Your task to perform on an android device: open wifi settings Image 0: 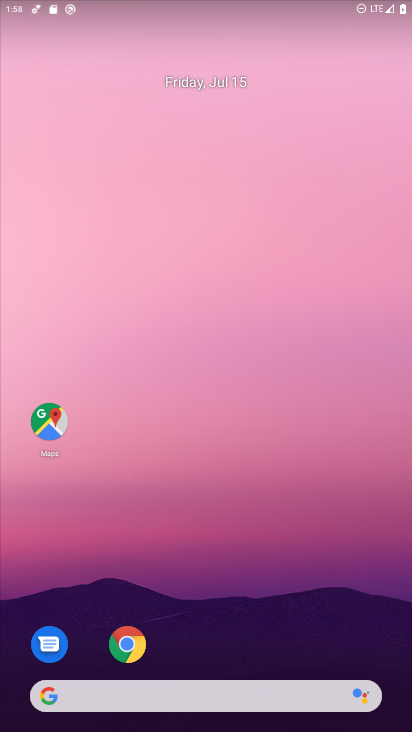
Step 0: drag from (267, 10) to (153, 443)
Your task to perform on an android device: open wifi settings Image 1: 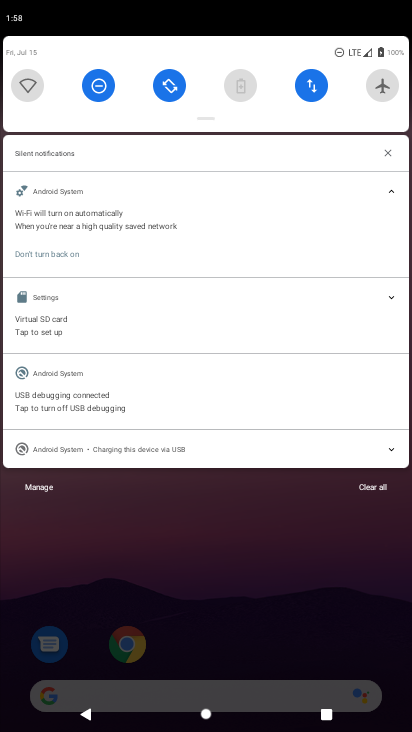
Step 1: click (38, 93)
Your task to perform on an android device: open wifi settings Image 2: 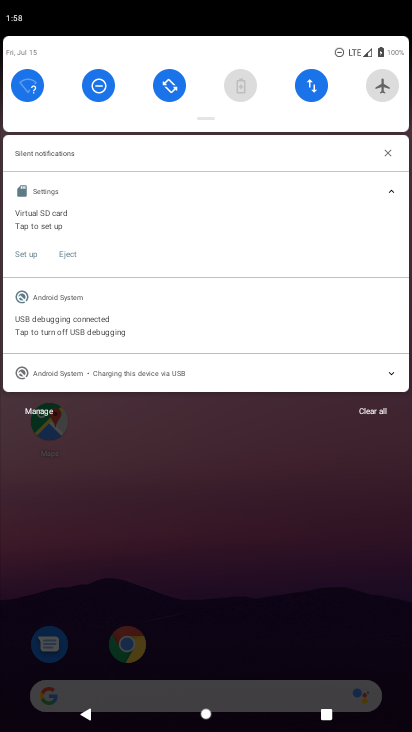
Step 2: click (29, 93)
Your task to perform on an android device: open wifi settings Image 3: 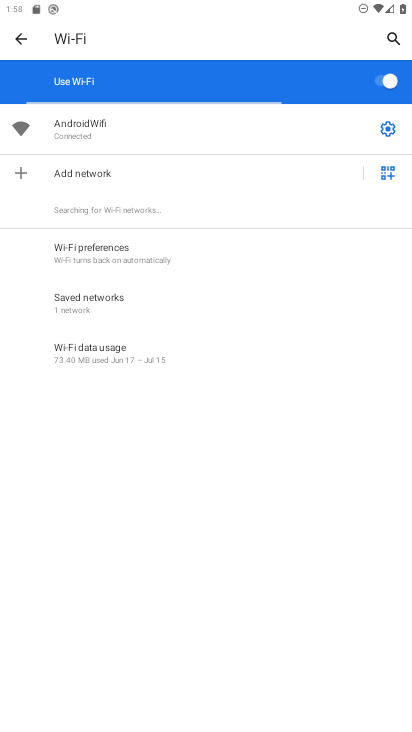
Step 3: click (390, 127)
Your task to perform on an android device: open wifi settings Image 4: 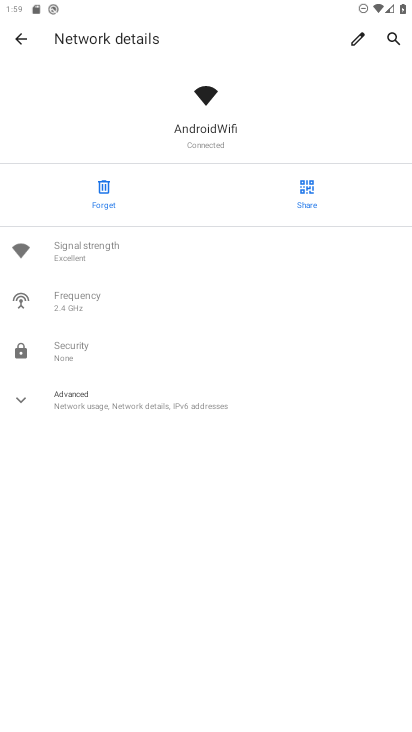
Step 4: task complete